Your task to perform on an android device: clear history in the chrome app Image 0: 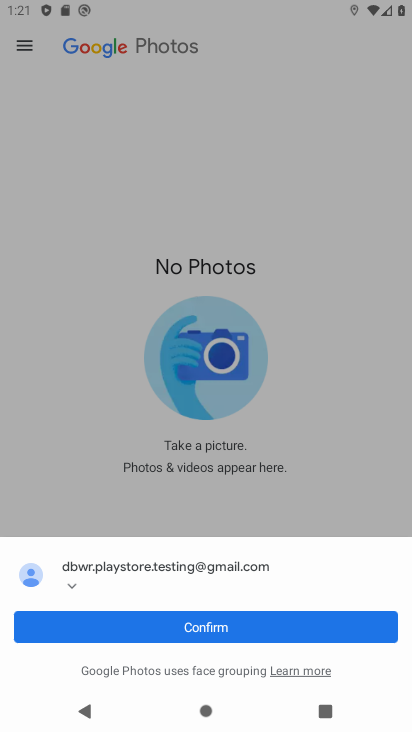
Step 0: press home button
Your task to perform on an android device: clear history in the chrome app Image 1: 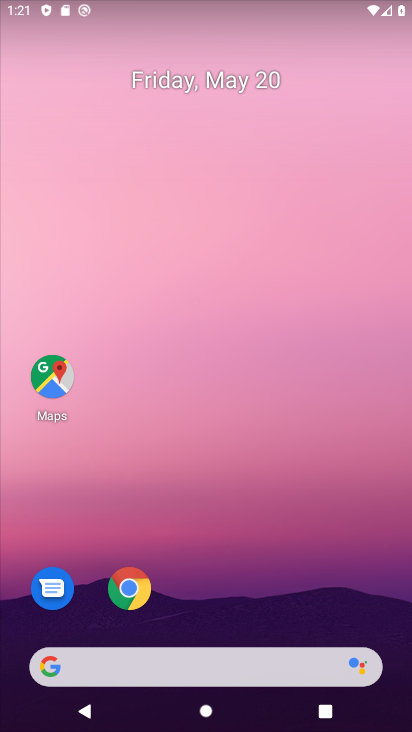
Step 1: click (134, 597)
Your task to perform on an android device: clear history in the chrome app Image 2: 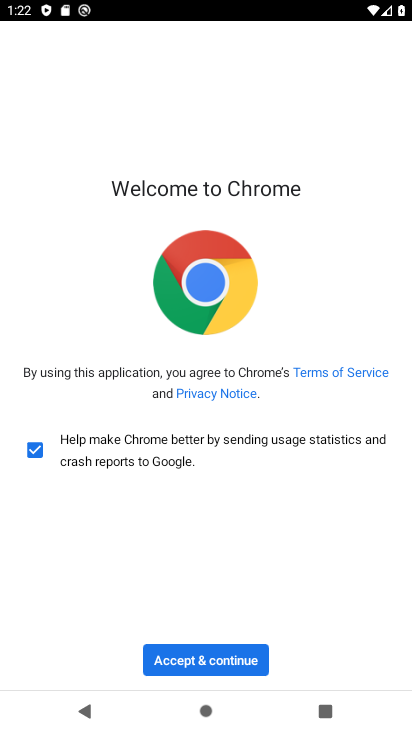
Step 2: click (211, 659)
Your task to perform on an android device: clear history in the chrome app Image 3: 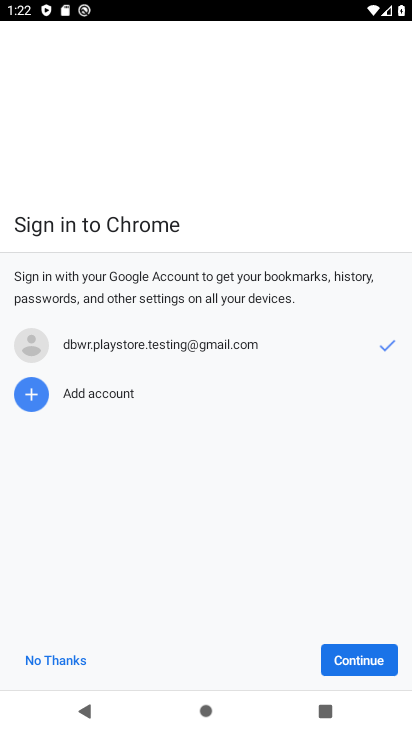
Step 3: click (358, 663)
Your task to perform on an android device: clear history in the chrome app Image 4: 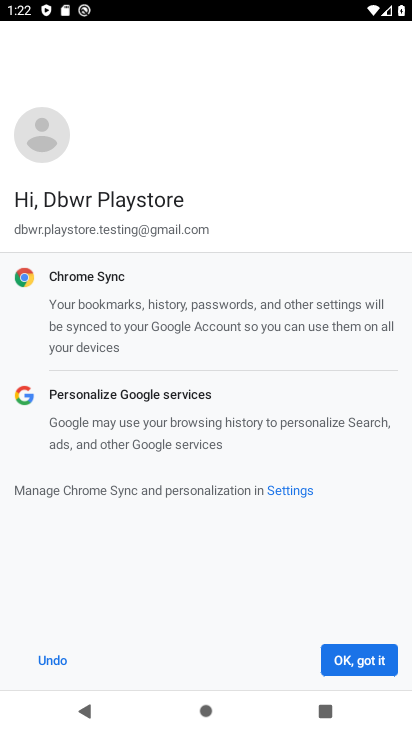
Step 4: click (358, 663)
Your task to perform on an android device: clear history in the chrome app Image 5: 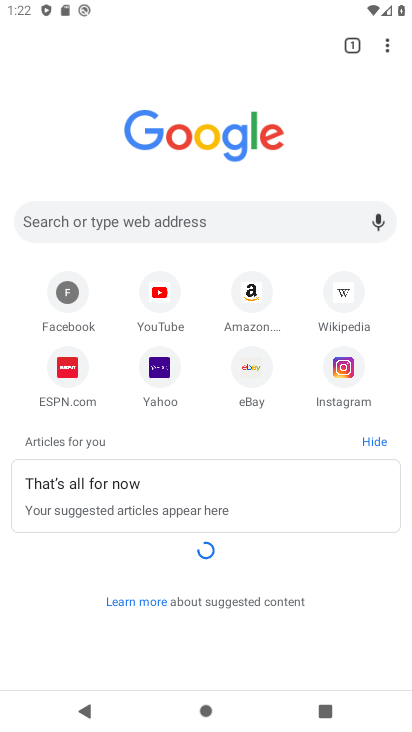
Step 5: task complete